Your task to perform on an android device: clear history in the chrome app Image 0: 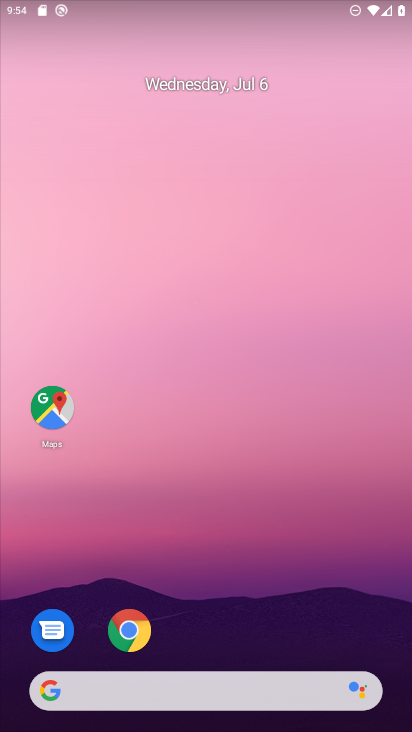
Step 0: press home button
Your task to perform on an android device: clear history in the chrome app Image 1: 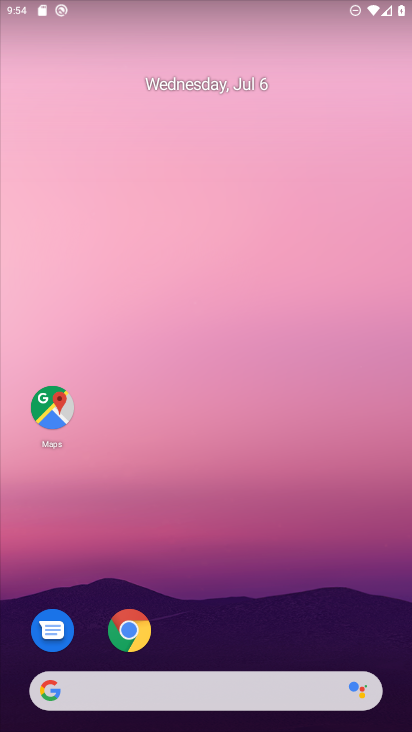
Step 1: click (122, 632)
Your task to perform on an android device: clear history in the chrome app Image 2: 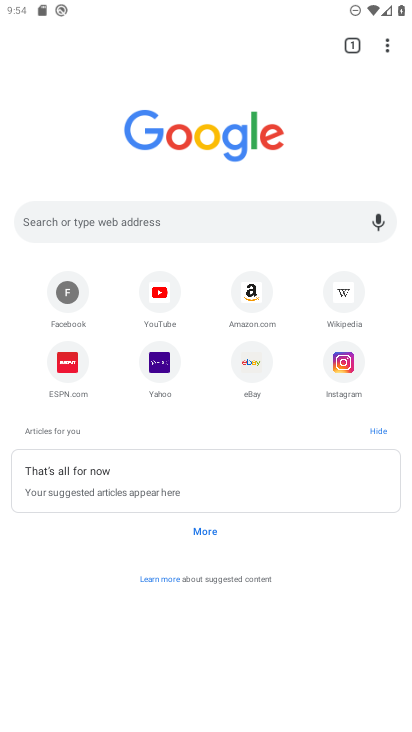
Step 2: click (385, 55)
Your task to perform on an android device: clear history in the chrome app Image 3: 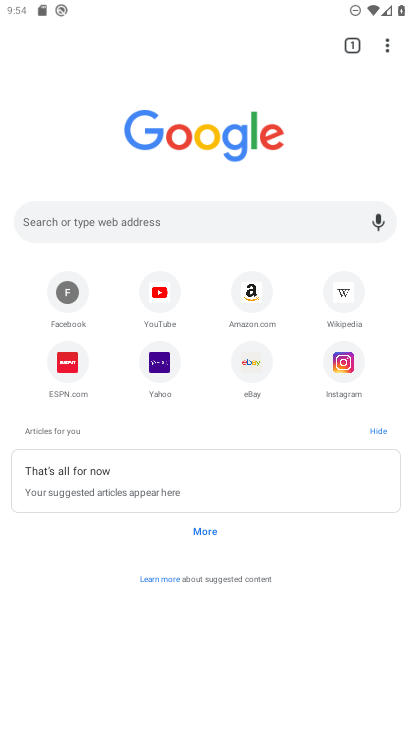
Step 3: drag from (387, 50) to (233, 257)
Your task to perform on an android device: clear history in the chrome app Image 4: 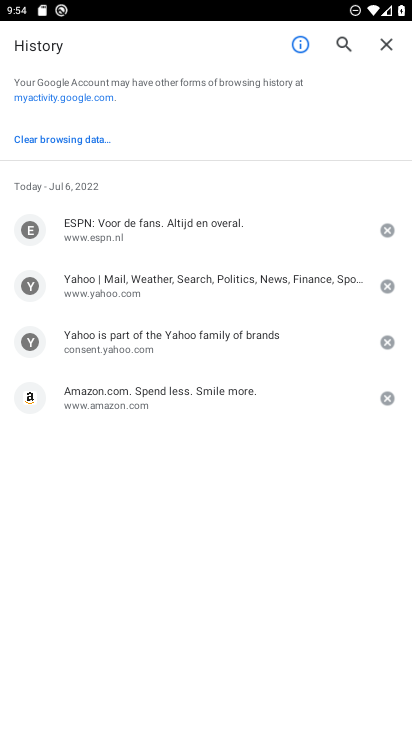
Step 4: click (66, 134)
Your task to perform on an android device: clear history in the chrome app Image 5: 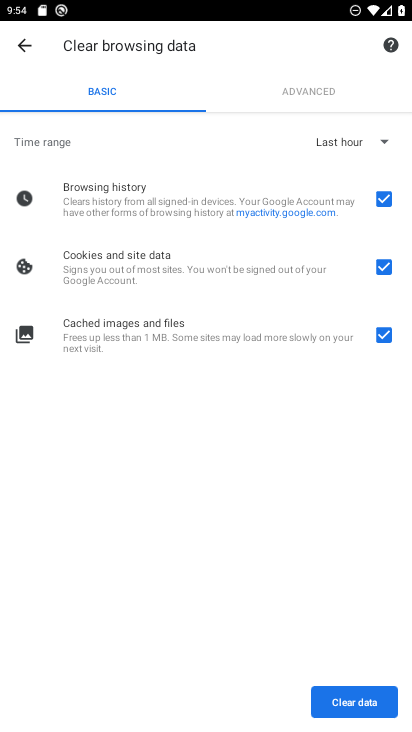
Step 5: click (349, 709)
Your task to perform on an android device: clear history in the chrome app Image 6: 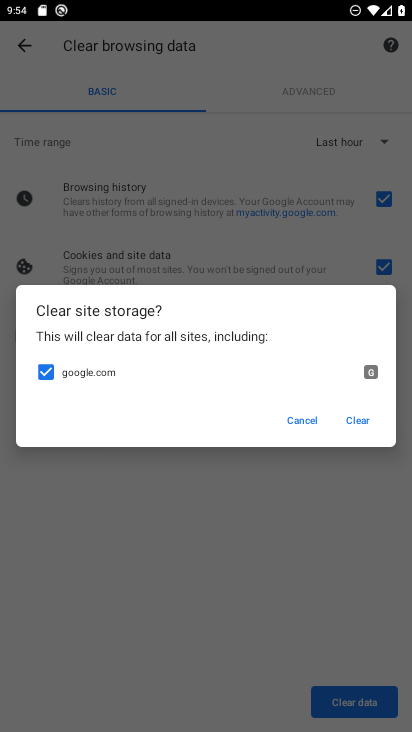
Step 6: click (312, 418)
Your task to perform on an android device: clear history in the chrome app Image 7: 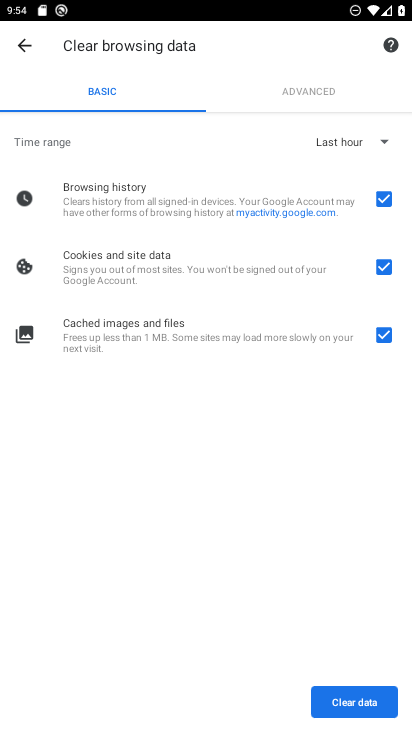
Step 7: click (378, 275)
Your task to perform on an android device: clear history in the chrome app Image 8: 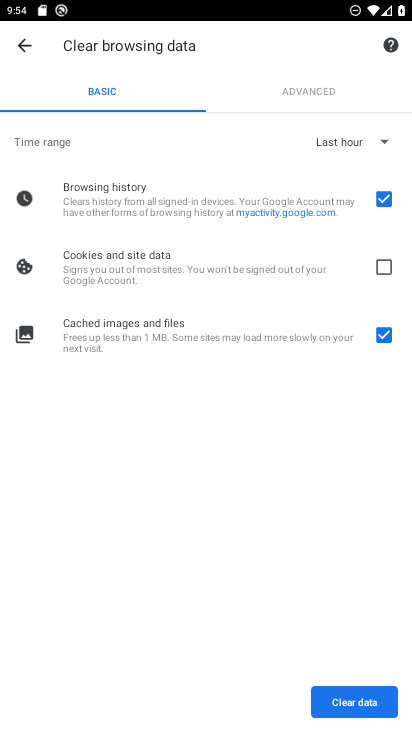
Step 8: click (383, 334)
Your task to perform on an android device: clear history in the chrome app Image 9: 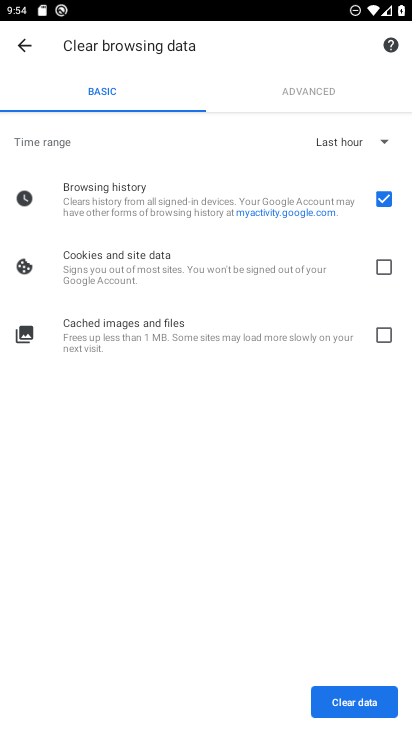
Step 9: click (333, 702)
Your task to perform on an android device: clear history in the chrome app Image 10: 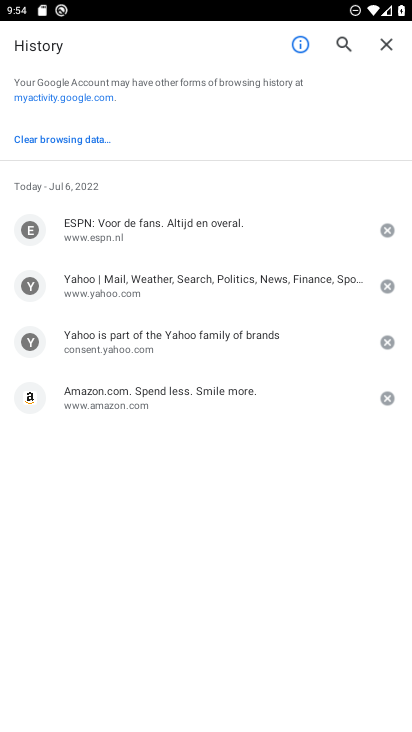
Step 10: click (388, 225)
Your task to perform on an android device: clear history in the chrome app Image 11: 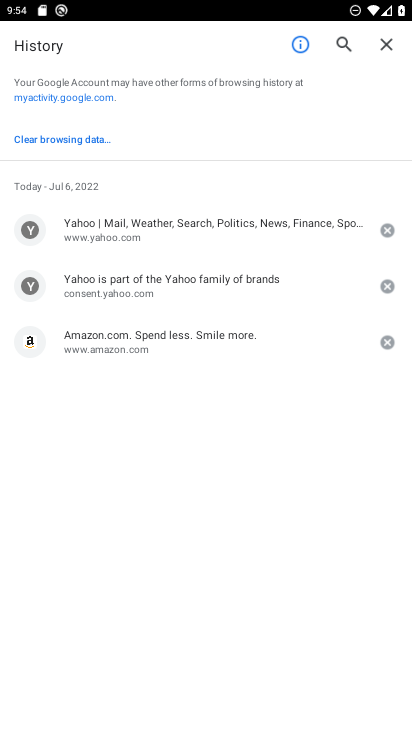
Step 11: click (388, 225)
Your task to perform on an android device: clear history in the chrome app Image 12: 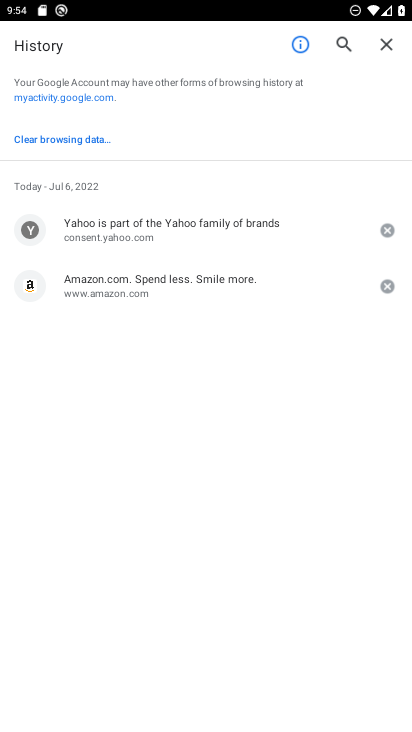
Step 12: click (388, 225)
Your task to perform on an android device: clear history in the chrome app Image 13: 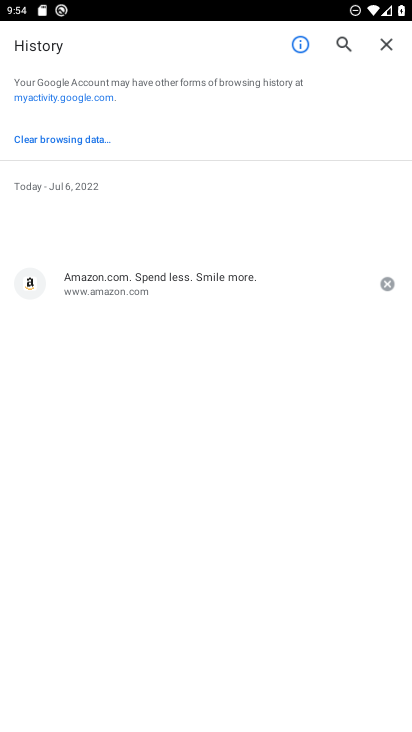
Step 13: click (388, 225)
Your task to perform on an android device: clear history in the chrome app Image 14: 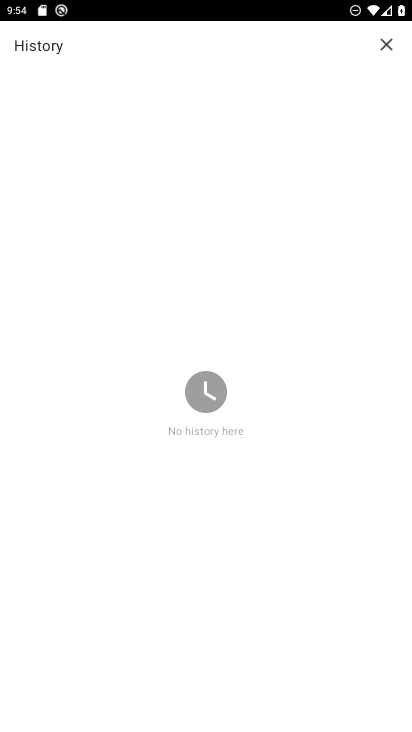
Step 14: click (388, 225)
Your task to perform on an android device: clear history in the chrome app Image 15: 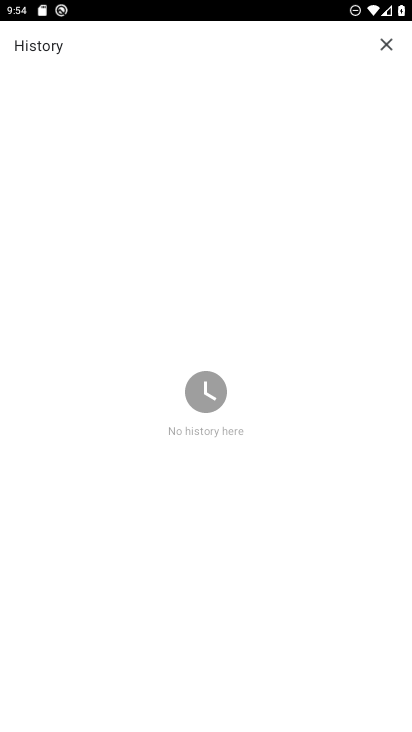
Step 15: click (388, 225)
Your task to perform on an android device: clear history in the chrome app Image 16: 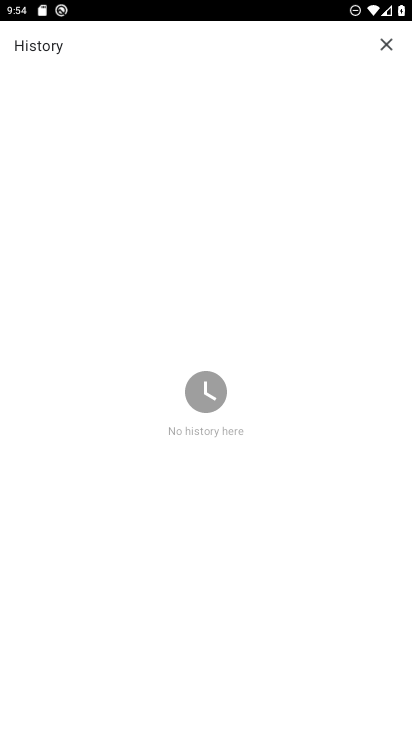
Step 16: click (388, 225)
Your task to perform on an android device: clear history in the chrome app Image 17: 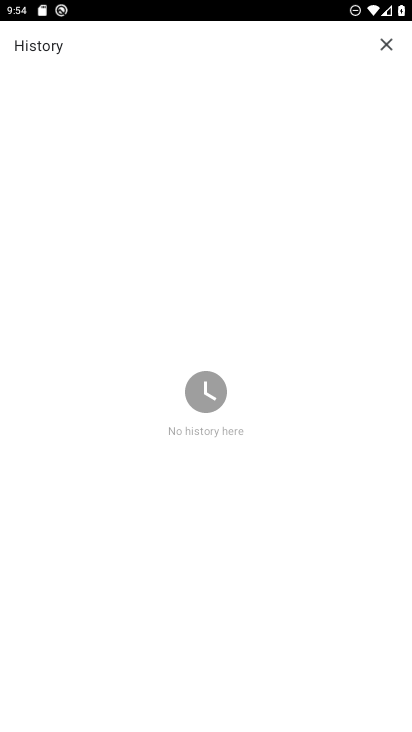
Step 17: task complete